Your task to perform on an android device: toggle data saver in the chrome app Image 0: 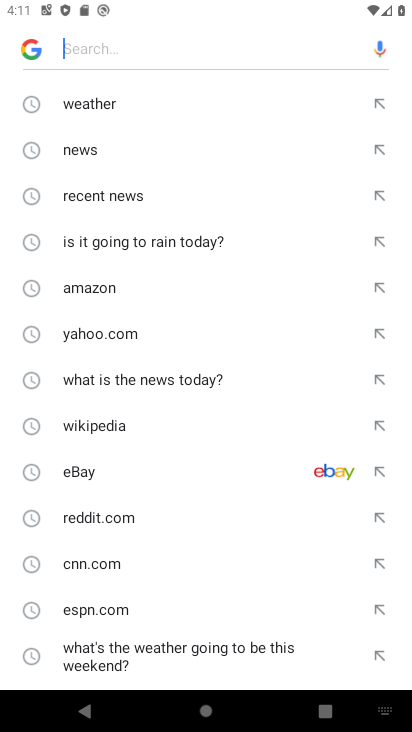
Step 0: press home button
Your task to perform on an android device: toggle data saver in the chrome app Image 1: 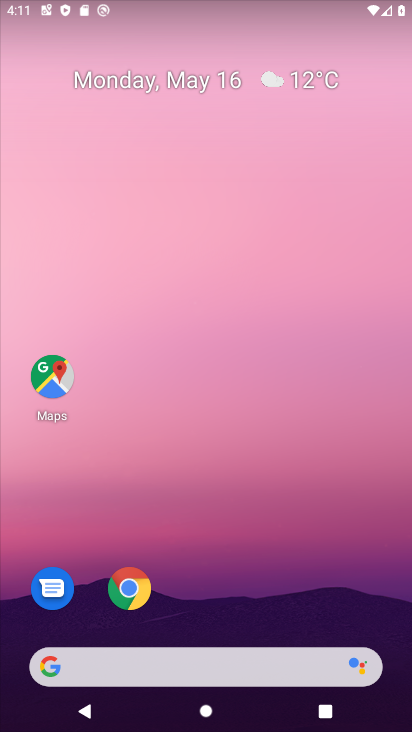
Step 1: click (130, 590)
Your task to perform on an android device: toggle data saver in the chrome app Image 2: 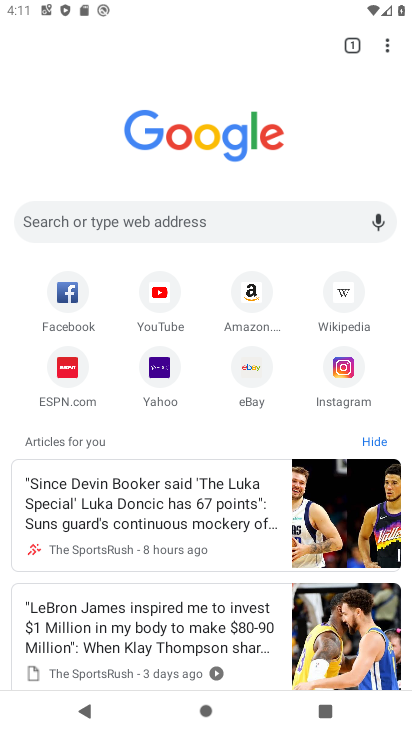
Step 2: drag from (390, 48) to (241, 413)
Your task to perform on an android device: toggle data saver in the chrome app Image 3: 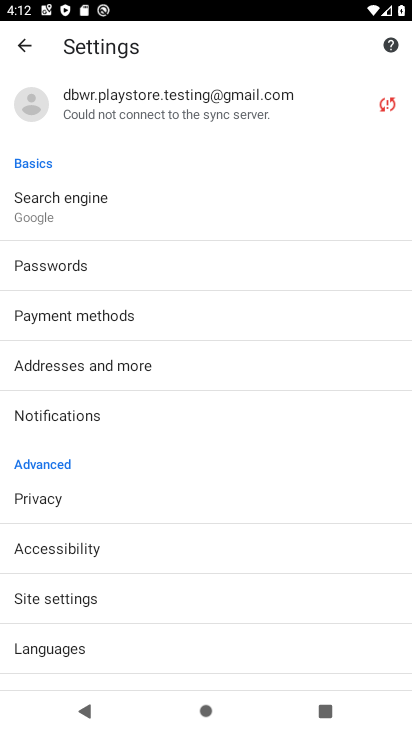
Step 3: drag from (83, 625) to (241, 135)
Your task to perform on an android device: toggle data saver in the chrome app Image 4: 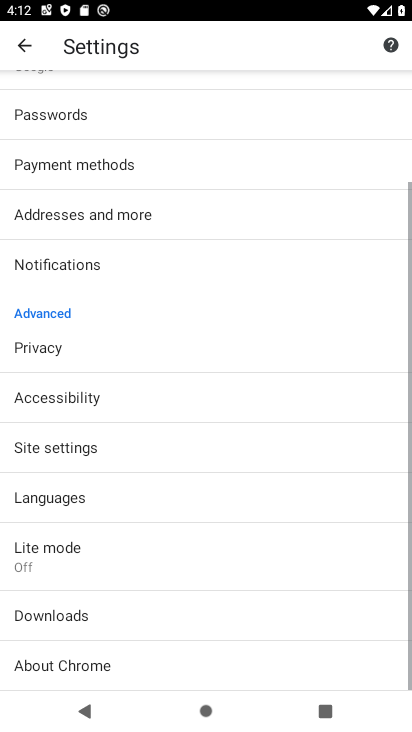
Step 4: click (64, 551)
Your task to perform on an android device: toggle data saver in the chrome app Image 5: 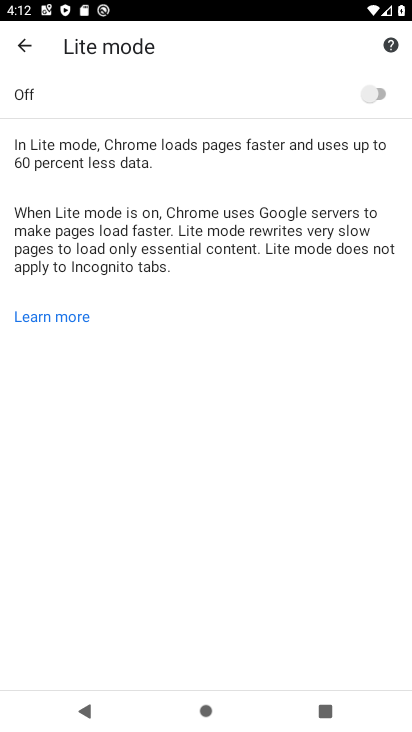
Step 5: click (368, 96)
Your task to perform on an android device: toggle data saver in the chrome app Image 6: 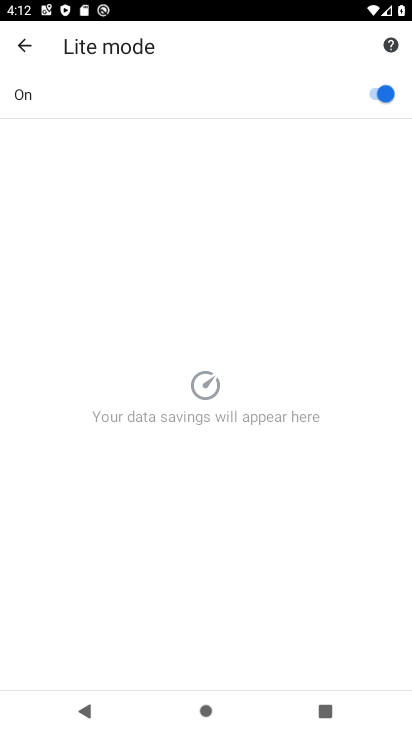
Step 6: task complete